Your task to perform on an android device: change the clock display to digital Image 0: 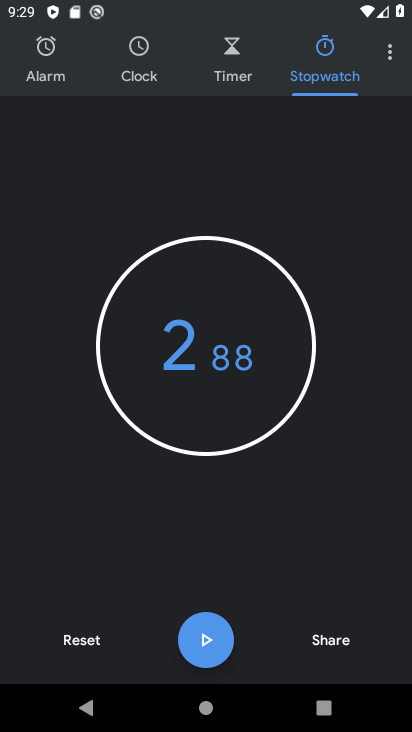
Step 0: press home button
Your task to perform on an android device: change the clock display to digital Image 1: 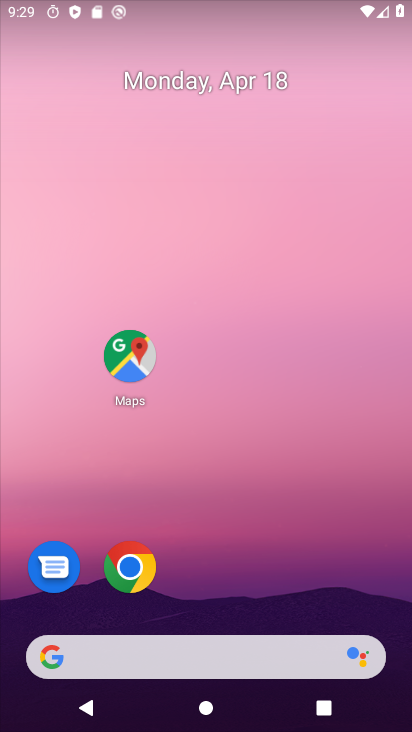
Step 1: drag from (264, 665) to (337, 257)
Your task to perform on an android device: change the clock display to digital Image 2: 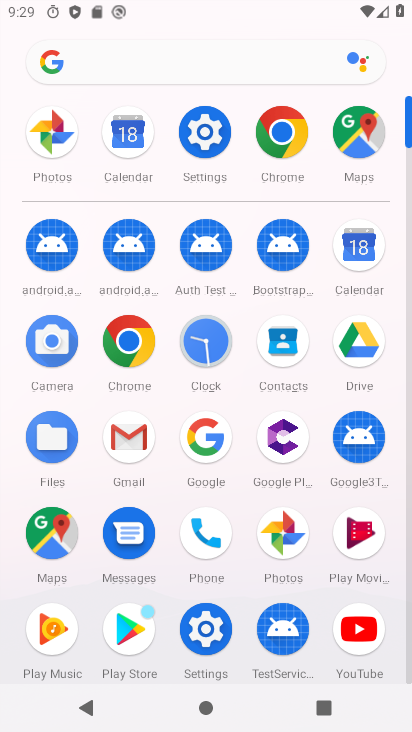
Step 2: click (215, 347)
Your task to perform on an android device: change the clock display to digital Image 3: 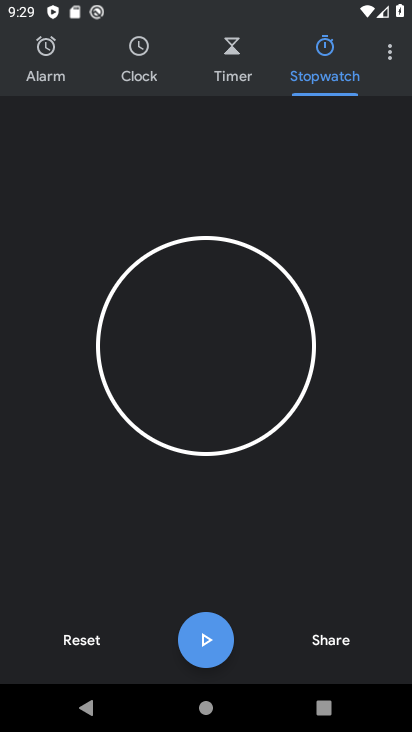
Step 3: click (394, 38)
Your task to perform on an android device: change the clock display to digital Image 4: 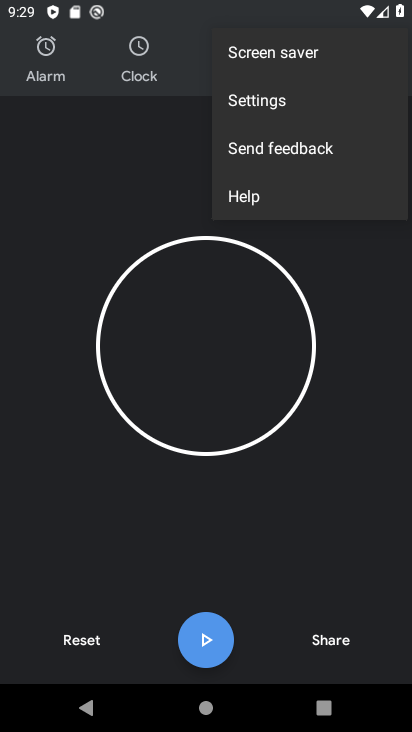
Step 4: click (281, 105)
Your task to perform on an android device: change the clock display to digital Image 5: 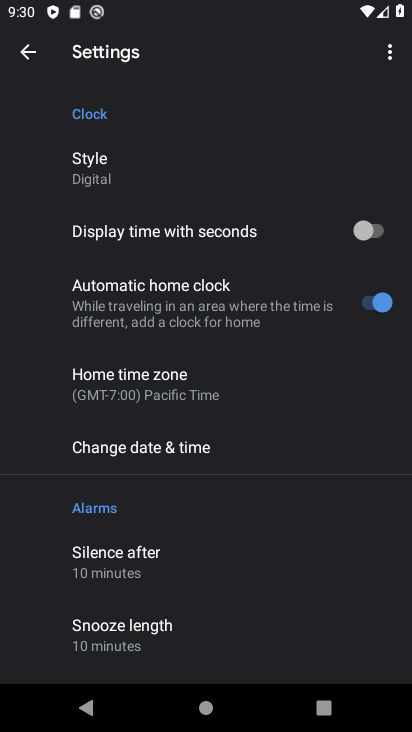
Step 5: click (131, 180)
Your task to perform on an android device: change the clock display to digital Image 6: 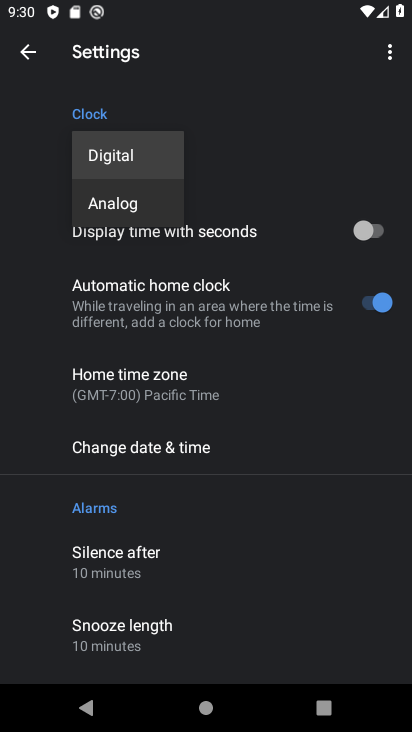
Step 6: click (143, 172)
Your task to perform on an android device: change the clock display to digital Image 7: 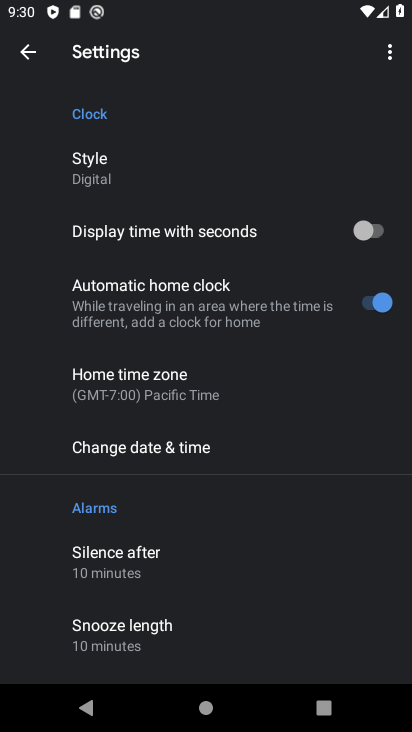
Step 7: task complete